Your task to perform on an android device: What's on my calendar tomorrow? Image 0: 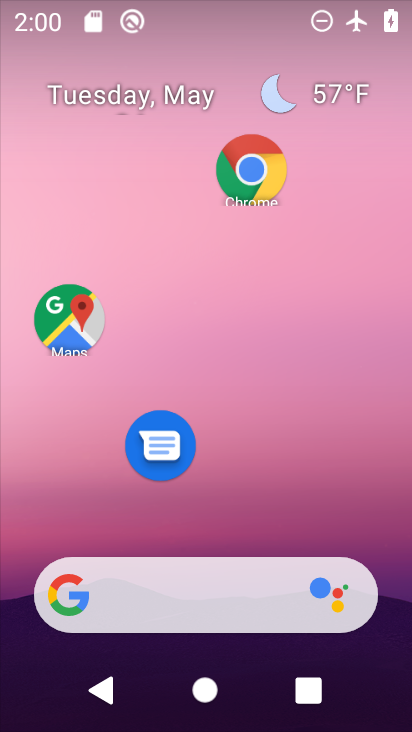
Step 0: drag from (218, 724) to (272, 93)
Your task to perform on an android device: What's on my calendar tomorrow? Image 1: 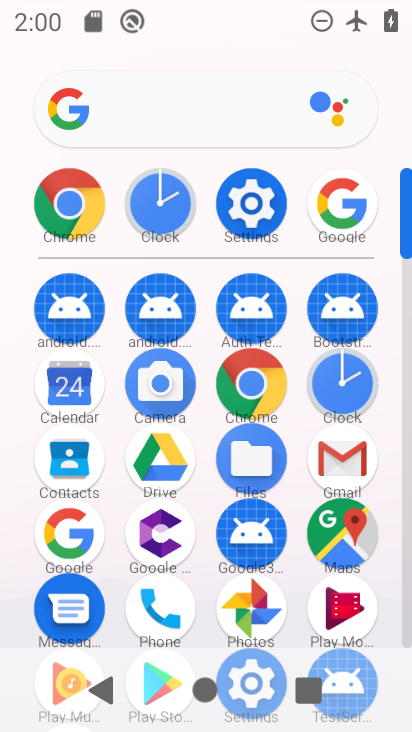
Step 1: click (72, 390)
Your task to perform on an android device: What's on my calendar tomorrow? Image 2: 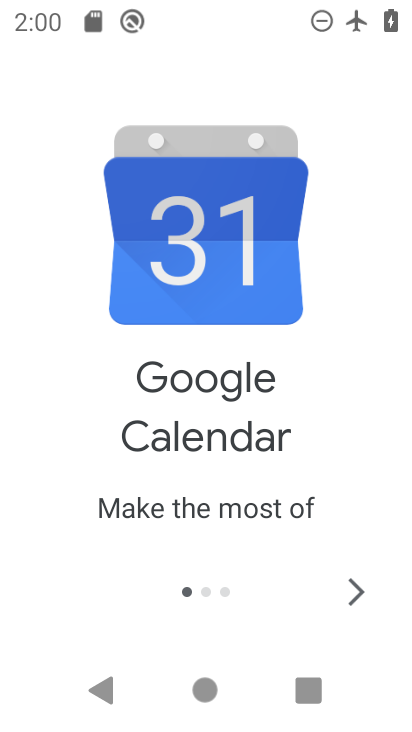
Step 2: click (347, 587)
Your task to perform on an android device: What's on my calendar tomorrow? Image 3: 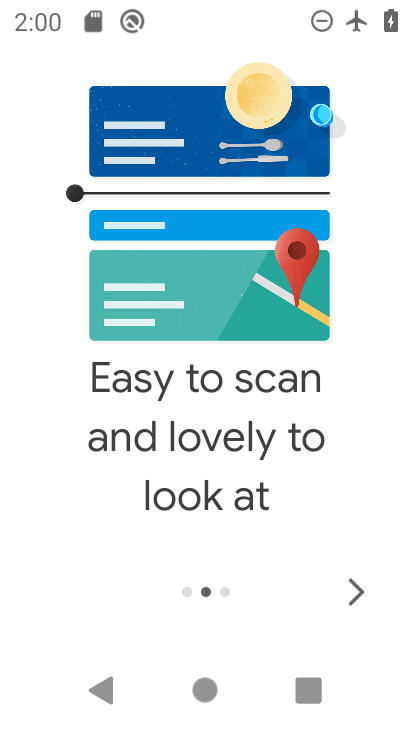
Step 3: click (347, 587)
Your task to perform on an android device: What's on my calendar tomorrow? Image 4: 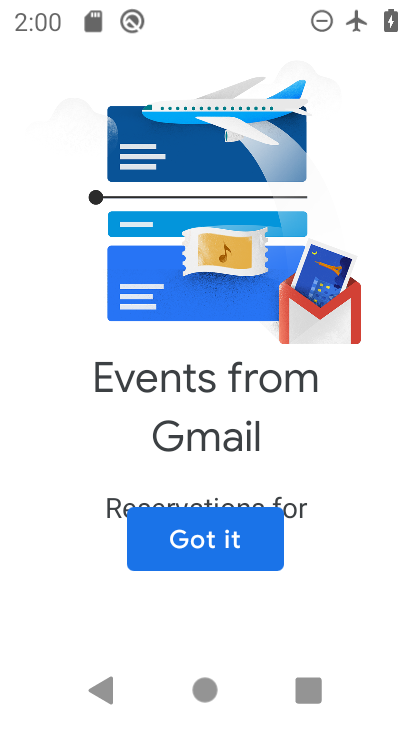
Step 4: click (237, 548)
Your task to perform on an android device: What's on my calendar tomorrow? Image 5: 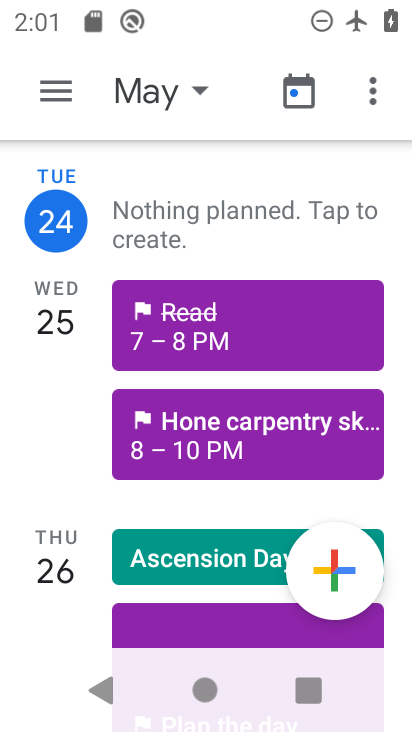
Step 5: click (180, 92)
Your task to perform on an android device: What's on my calendar tomorrow? Image 6: 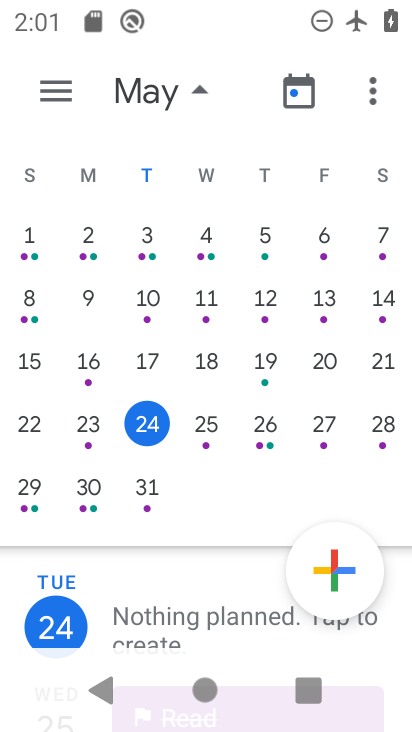
Step 6: click (208, 423)
Your task to perform on an android device: What's on my calendar tomorrow? Image 7: 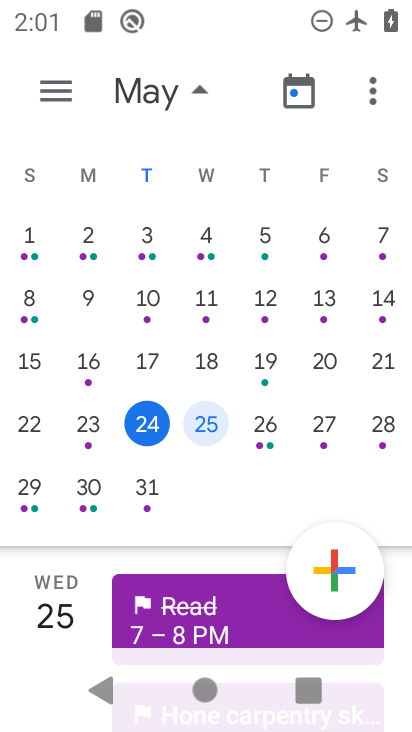
Step 7: click (199, 89)
Your task to perform on an android device: What's on my calendar tomorrow? Image 8: 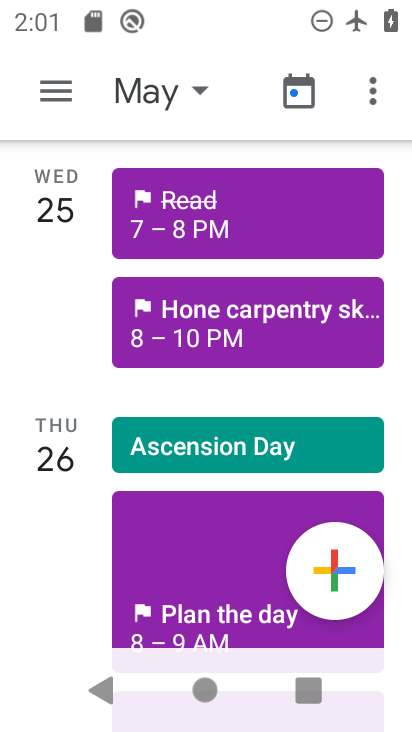
Step 8: task complete